Your task to perform on an android device: Open notification settings Image 0: 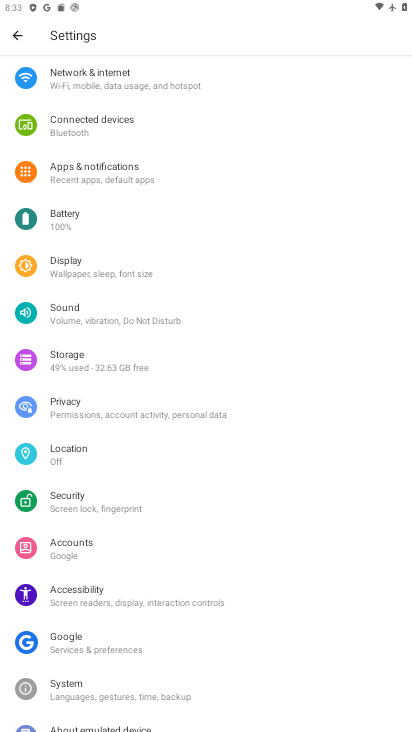
Step 0: click (86, 177)
Your task to perform on an android device: Open notification settings Image 1: 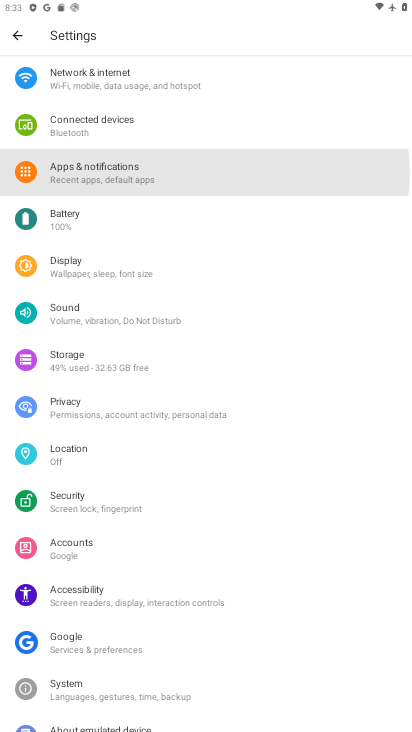
Step 1: click (86, 177)
Your task to perform on an android device: Open notification settings Image 2: 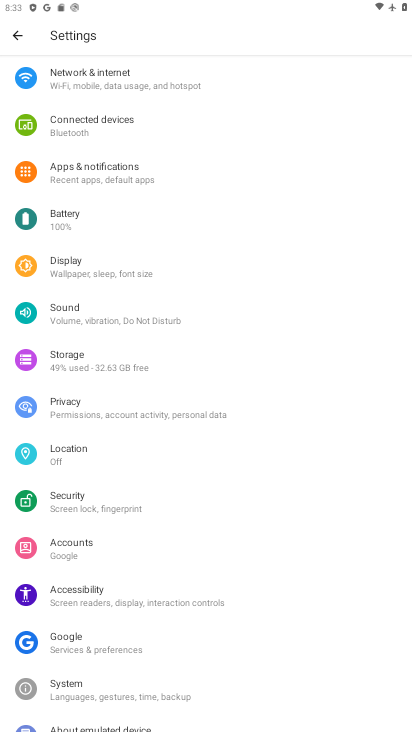
Step 2: click (95, 172)
Your task to perform on an android device: Open notification settings Image 3: 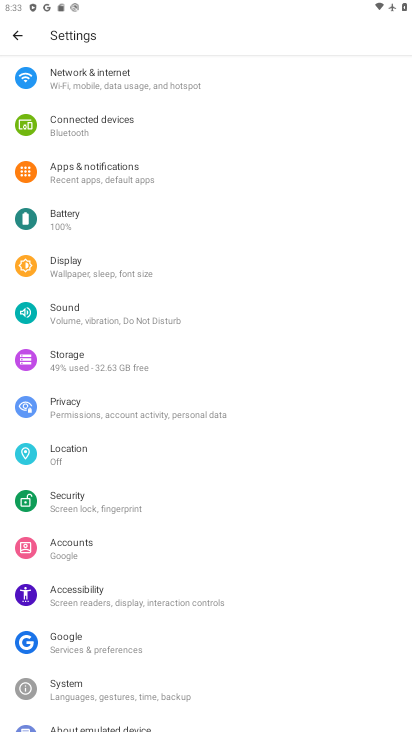
Step 3: click (97, 171)
Your task to perform on an android device: Open notification settings Image 4: 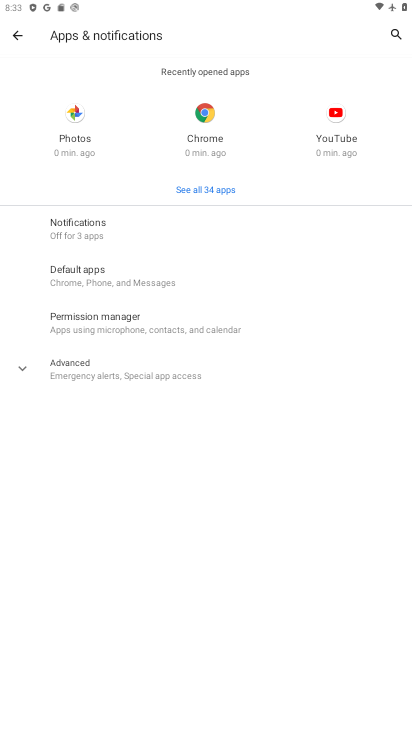
Step 4: click (80, 246)
Your task to perform on an android device: Open notification settings Image 5: 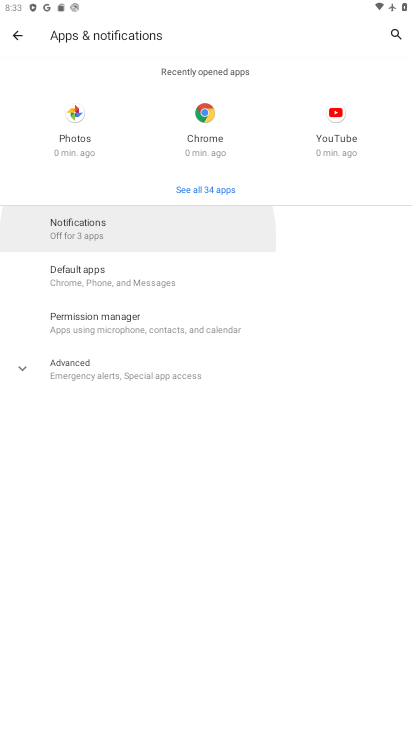
Step 5: click (77, 231)
Your task to perform on an android device: Open notification settings Image 6: 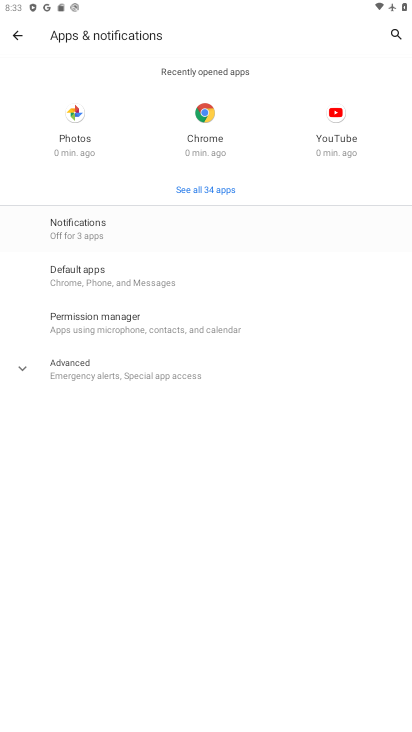
Step 6: click (73, 228)
Your task to perform on an android device: Open notification settings Image 7: 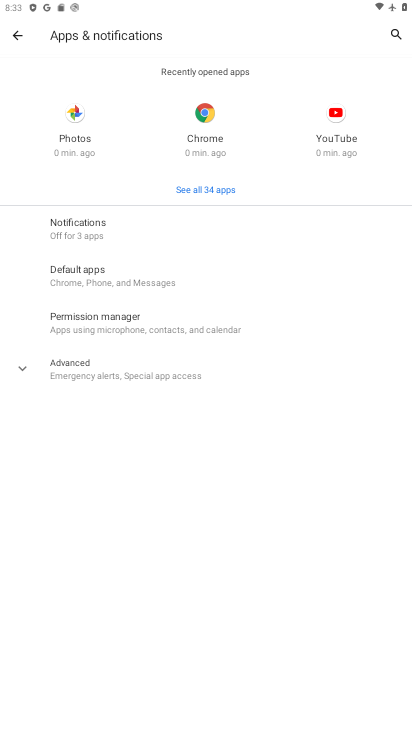
Step 7: click (73, 223)
Your task to perform on an android device: Open notification settings Image 8: 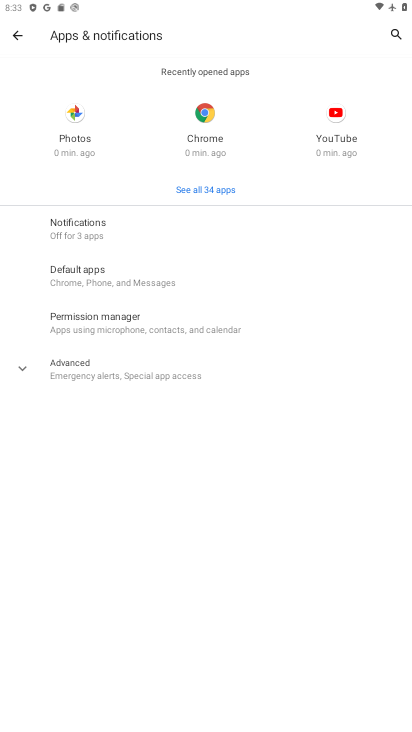
Step 8: click (79, 225)
Your task to perform on an android device: Open notification settings Image 9: 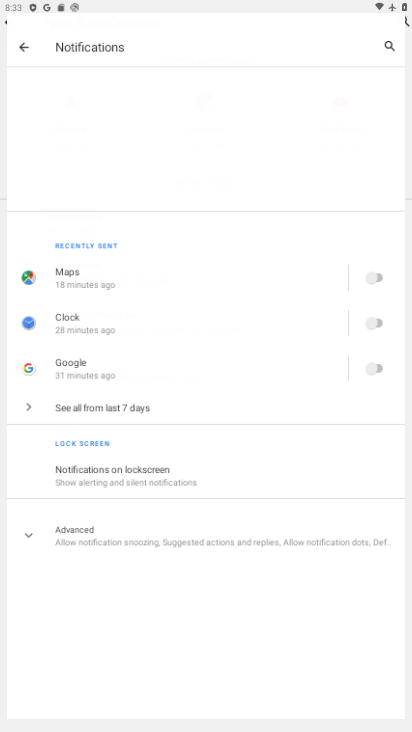
Step 9: click (88, 231)
Your task to perform on an android device: Open notification settings Image 10: 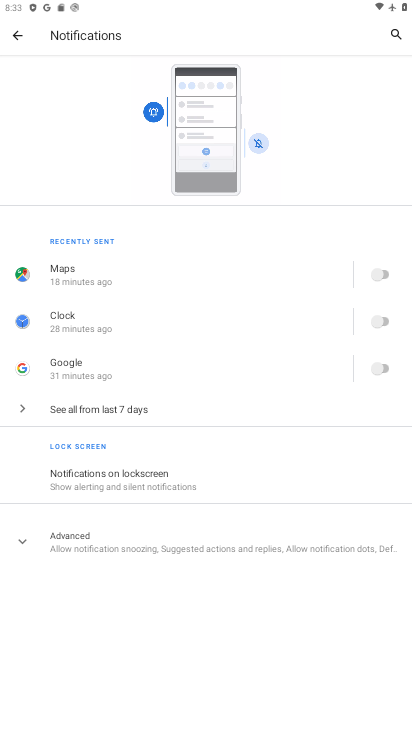
Step 10: task complete